Your task to perform on an android device: turn on data saver in the chrome app Image 0: 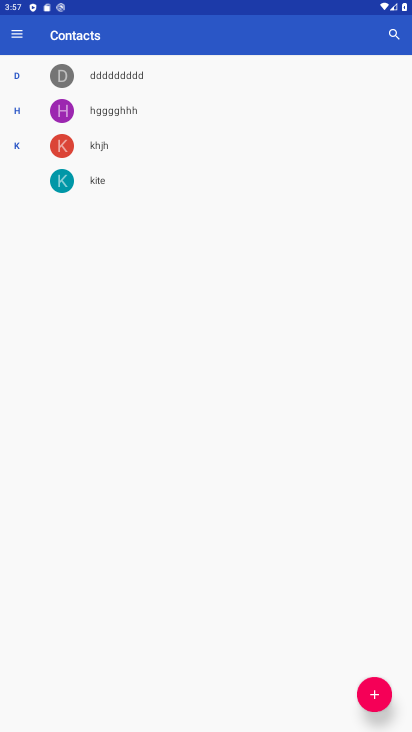
Step 0: press home button
Your task to perform on an android device: turn on data saver in the chrome app Image 1: 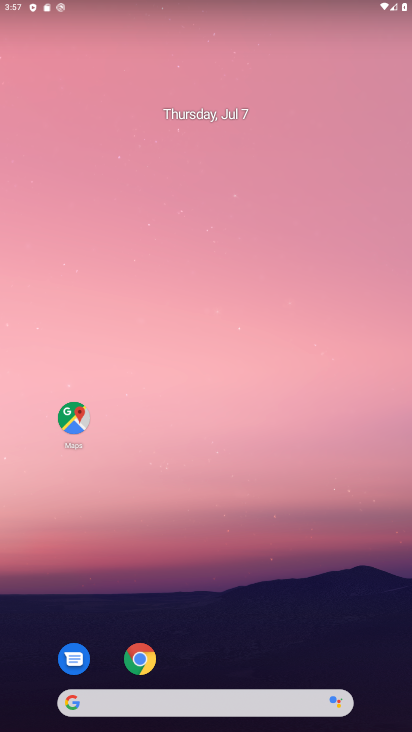
Step 1: drag from (220, 629) to (268, 8)
Your task to perform on an android device: turn on data saver in the chrome app Image 2: 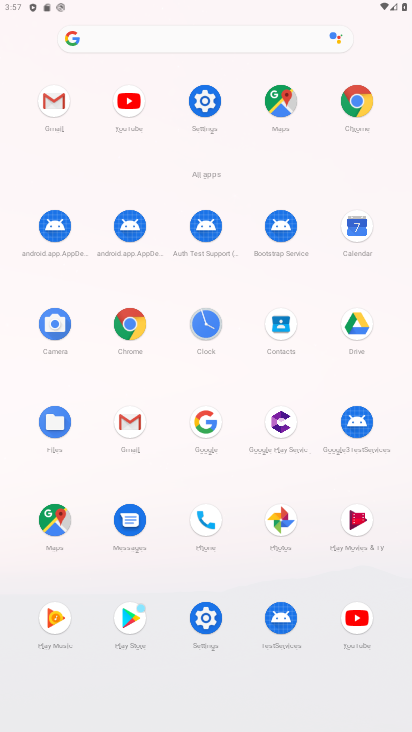
Step 2: click (122, 324)
Your task to perform on an android device: turn on data saver in the chrome app Image 3: 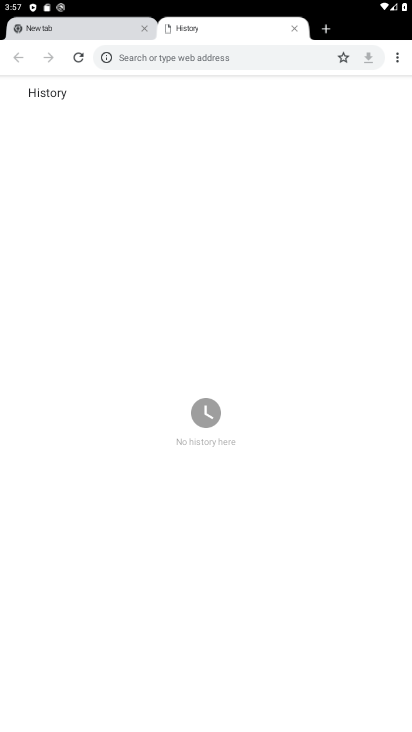
Step 3: click (391, 55)
Your task to perform on an android device: turn on data saver in the chrome app Image 4: 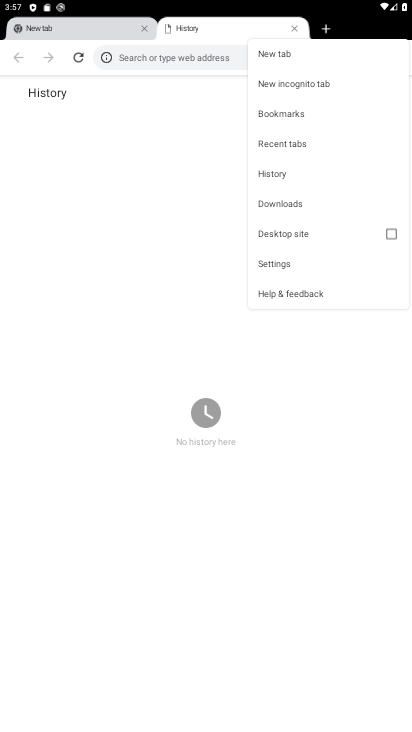
Step 4: click (283, 266)
Your task to perform on an android device: turn on data saver in the chrome app Image 5: 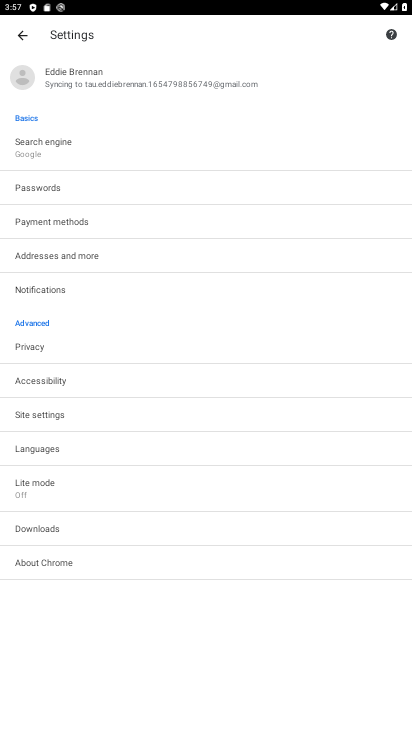
Step 5: click (56, 481)
Your task to perform on an android device: turn on data saver in the chrome app Image 6: 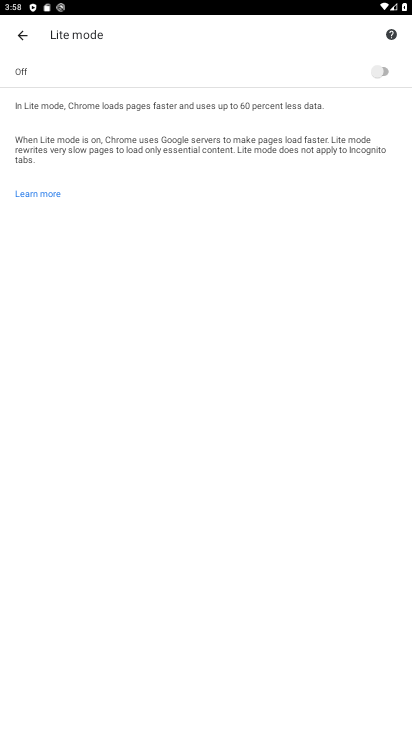
Step 6: click (380, 67)
Your task to perform on an android device: turn on data saver in the chrome app Image 7: 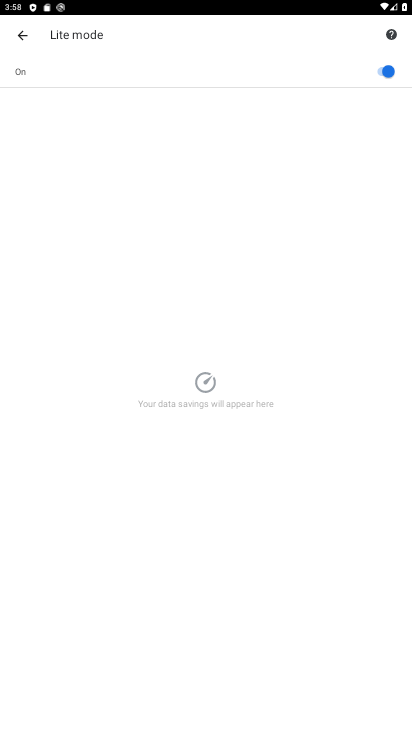
Step 7: task complete